Your task to perform on an android device: turn off translation in the chrome app Image 0: 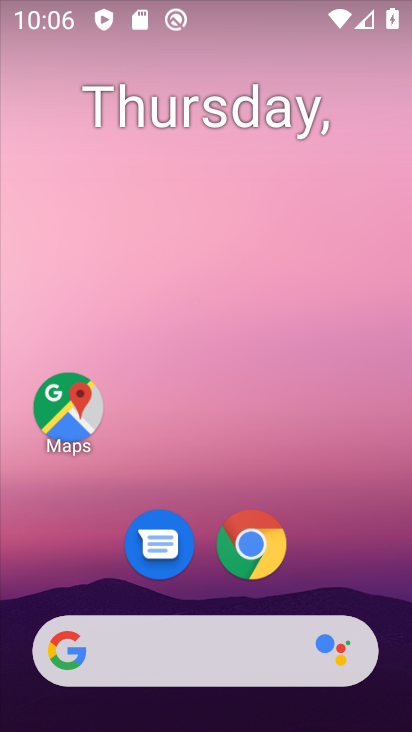
Step 0: click (249, 543)
Your task to perform on an android device: turn off translation in the chrome app Image 1: 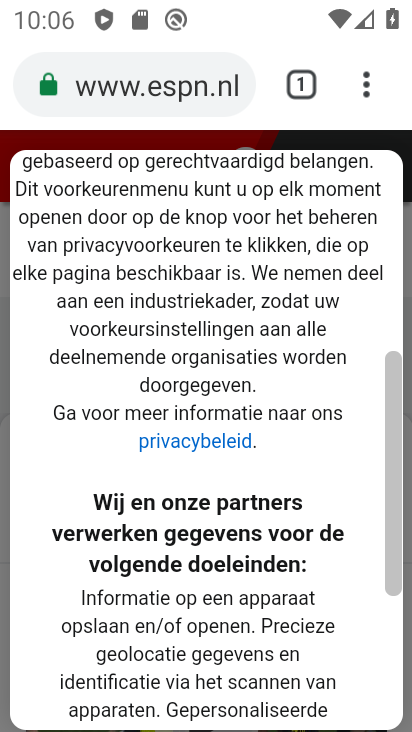
Step 1: click (363, 79)
Your task to perform on an android device: turn off translation in the chrome app Image 2: 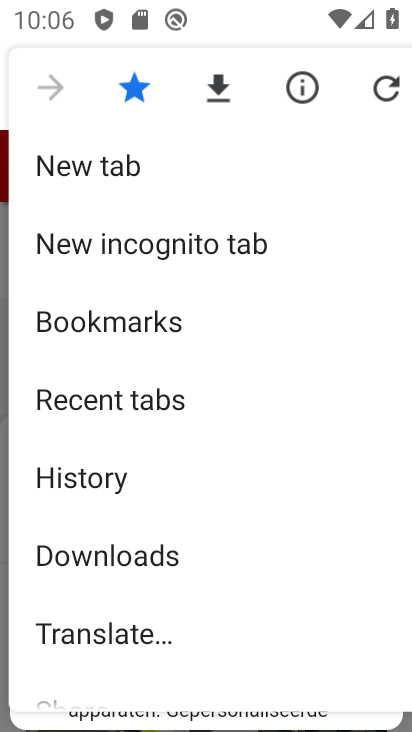
Step 2: drag from (207, 534) to (218, 207)
Your task to perform on an android device: turn off translation in the chrome app Image 3: 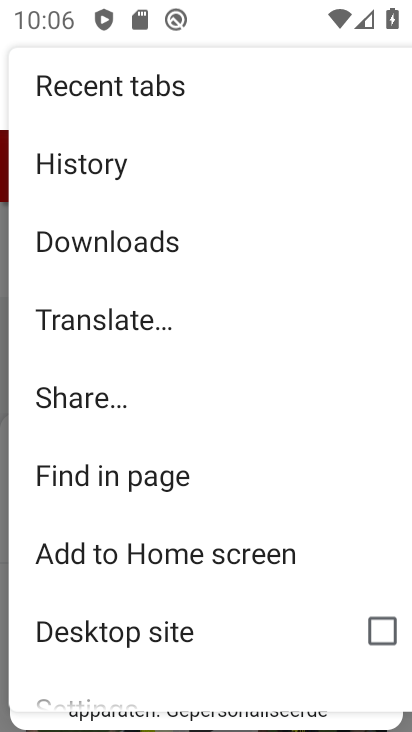
Step 3: drag from (219, 635) to (245, 100)
Your task to perform on an android device: turn off translation in the chrome app Image 4: 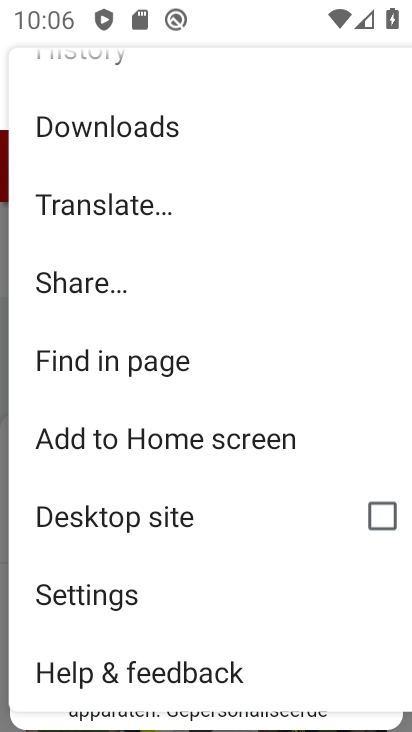
Step 4: click (147, 593)
Your task to perform on an android device: turn off translation in the chrome app Image 5: 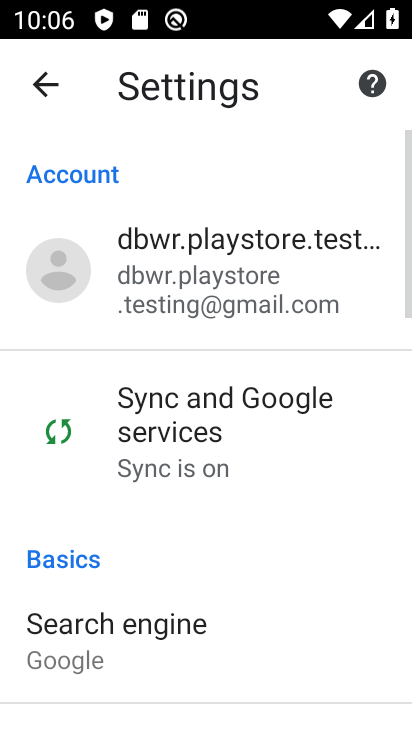
Step 5: drag from (225, 668) to (243, 55)
Your task to perform on an android device: turn off translation in the chrome app Image 6: 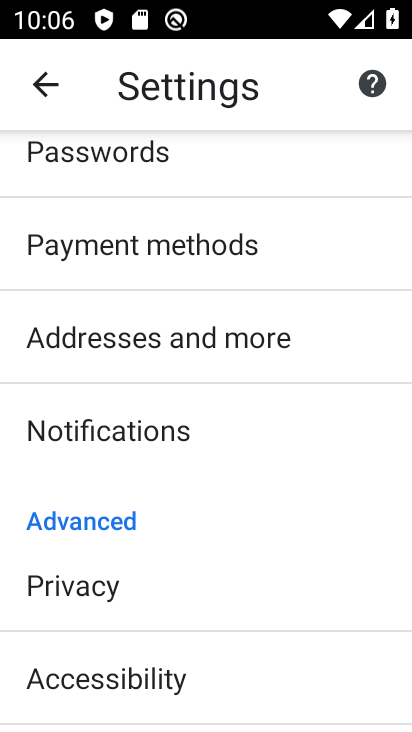
Step 6: drag from (205, 695) to (252, 406)
Your task to perform on an android device: turn off translation in the chrome app Image 7: 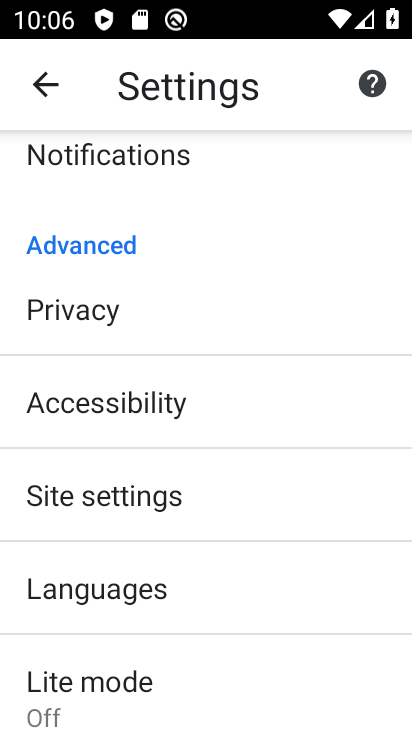
Step 7: click (186, 589)
Your task to perform on an android device: turn off translation in the chrome app Image 8: 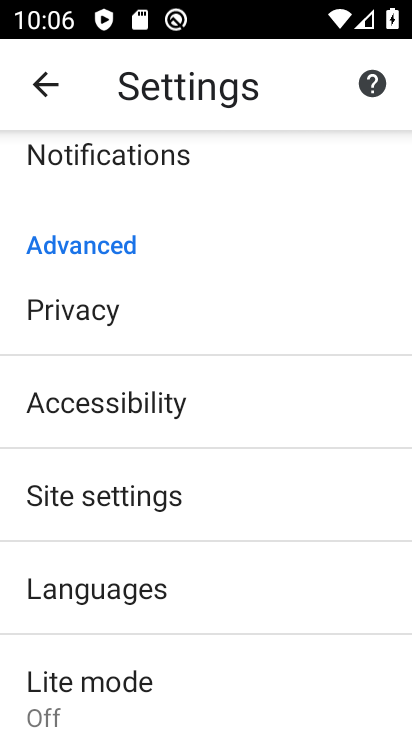
Step 8: click (186, 589)
Your task to perform on an android device: turn off translation in the chrome app Image 9: 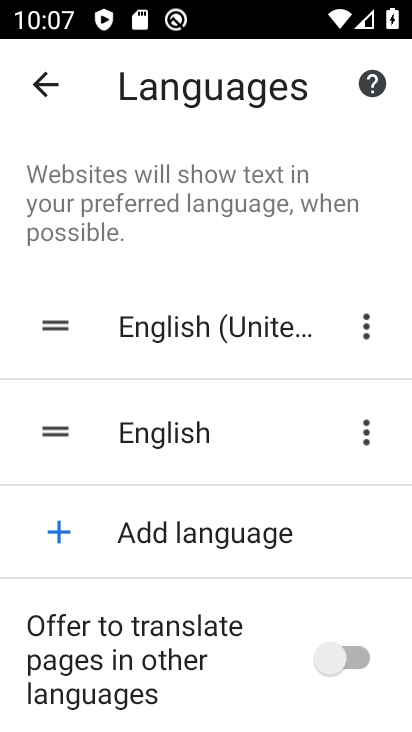
Step 9: task complete